Your task to perform on an android device: check android version Image 0: 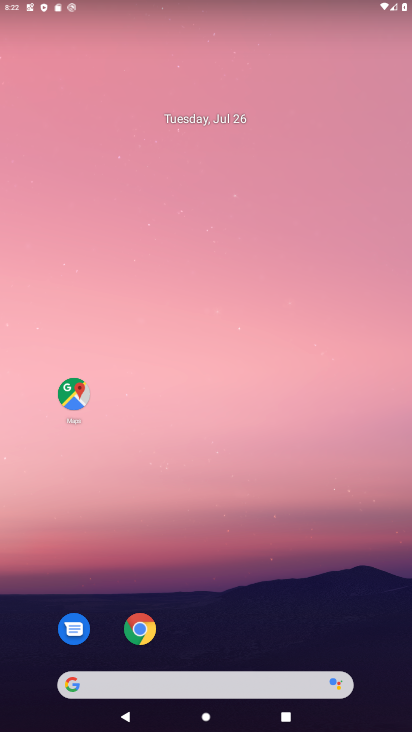
Step 0: press home button
Your task to perform on an android device: check android version Image 1: 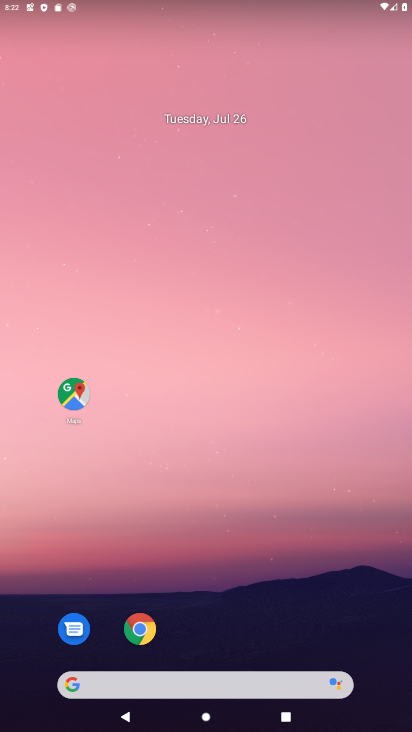
Step 1: drag from (212, 647) to (247, 21)
Your task to perform on an android device: check android version Image 2: 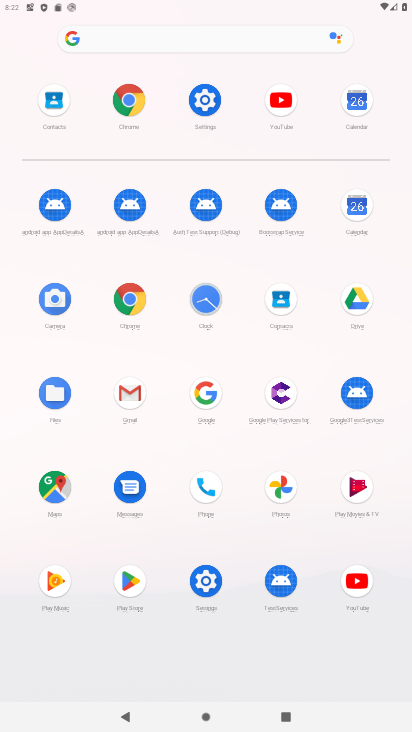
Step 2: click (205, 575)
Your task to perform on an android device: check android version Image 3: 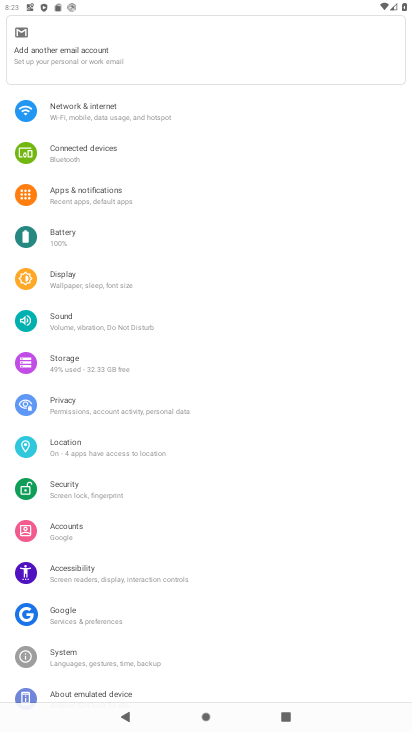
Step 3: press back button
Your task to perform on an android device: check android version Image 4: 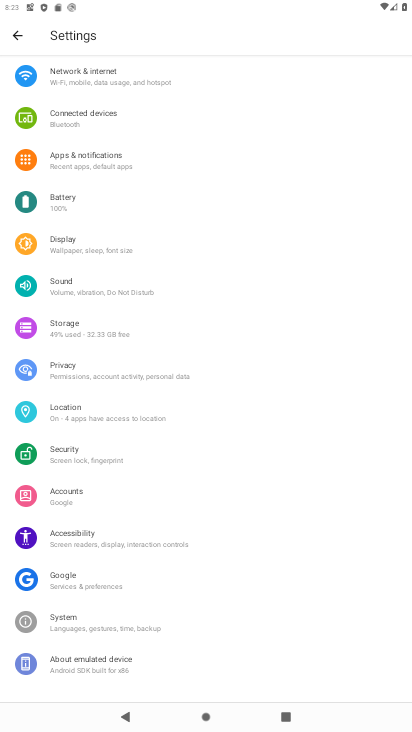
Step 4: press back button
Your task to perform on an android device: check android version Image 5: 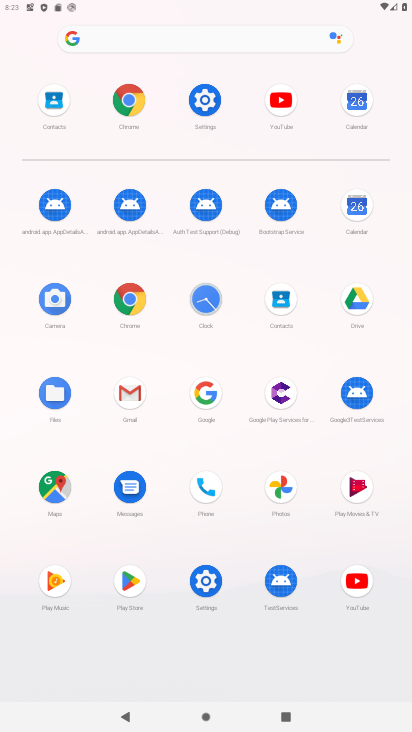
Step 5: click (203, 579)
Your task to perform on an android device: check android version Image 6: 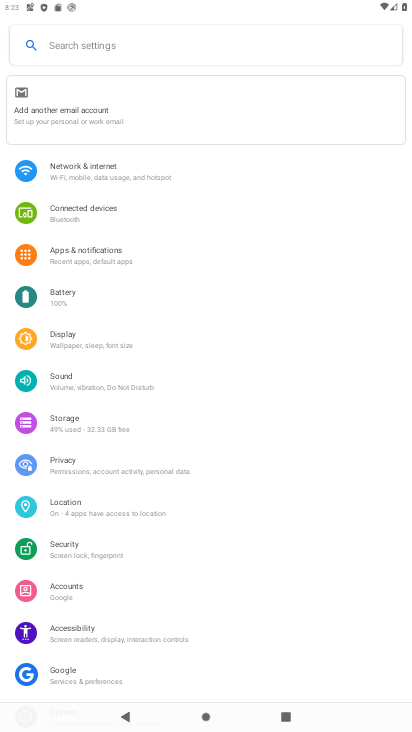
Step 6: drag from (155, 647) to (177, 79)
Your task to perform on an android device: check android version Image 7: 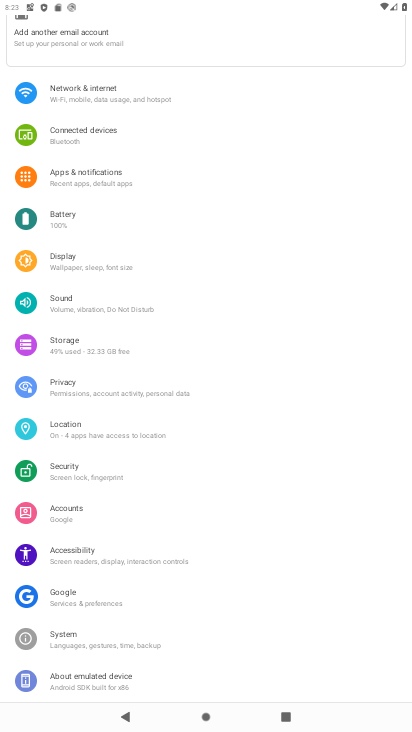
Step 7: click (157, 681)
Your task to perform on an android device: check android version Image 8: 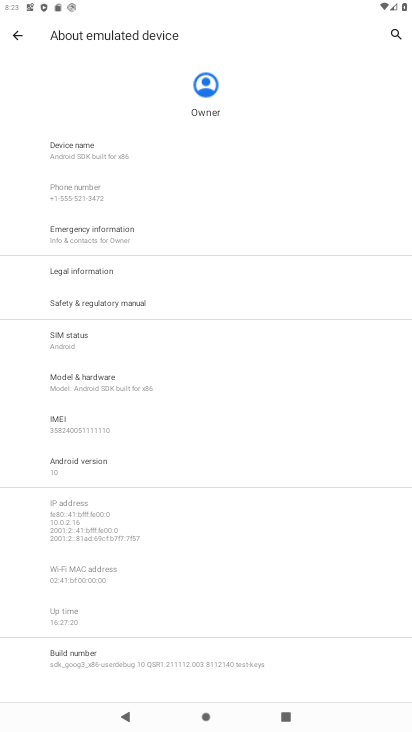
Step 8: click (109, 466)
Your task to perform on an android device: check android version Image 9: 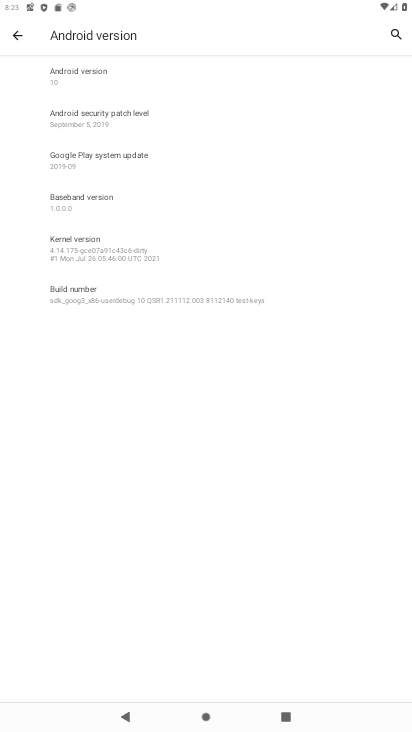
Step 9: task complete